Your task to perform on an android device: What is the news today? Image 0: 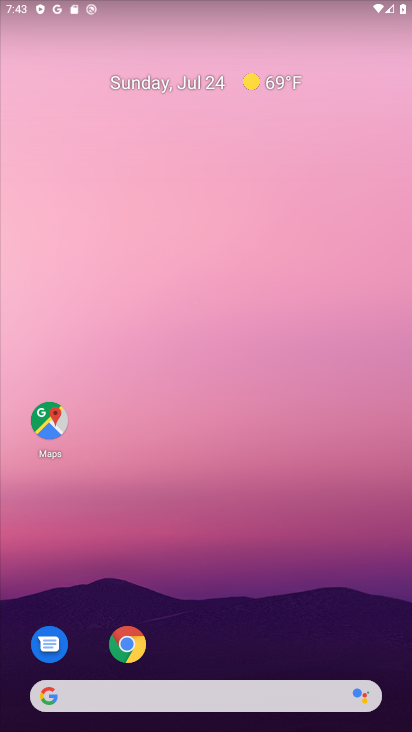
Step 0: drag from (186, 675) to (87, 45)
Your task to perform on an android device: What is the news today? Image 1: 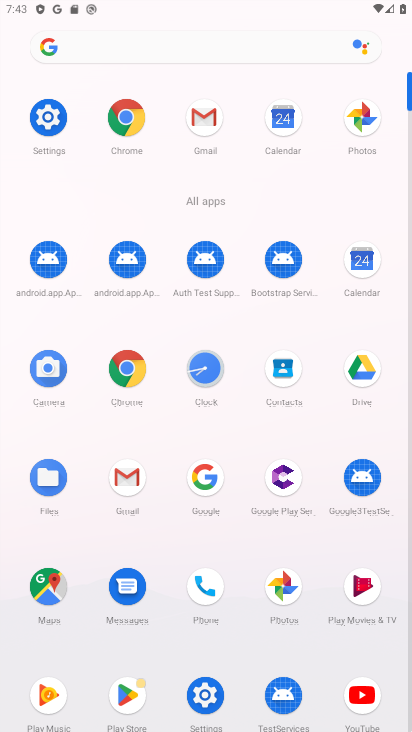
Step 1: click (207, 488)
Your task to perform on an android device: What is the news today? Image 2: 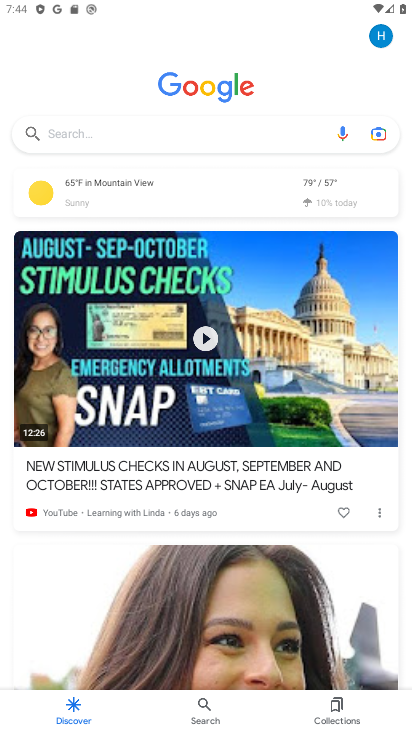
Step 2: click (69, 141)
Your task to perform on an android device: What is the news today? Image 3: 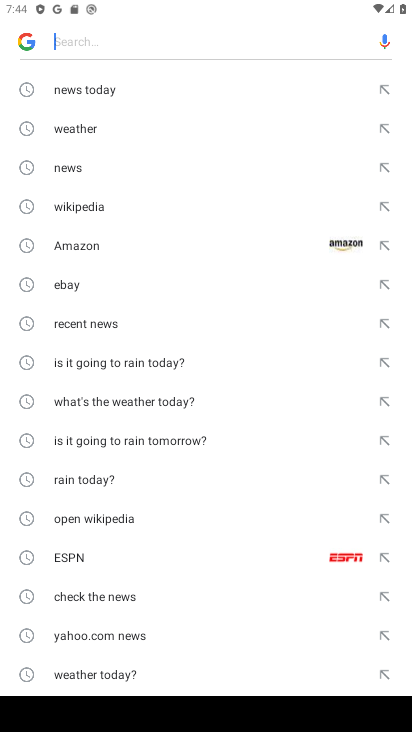
Step 3: click (94, 91)
Your task to perform on an android device: What is the news today? Image 4: 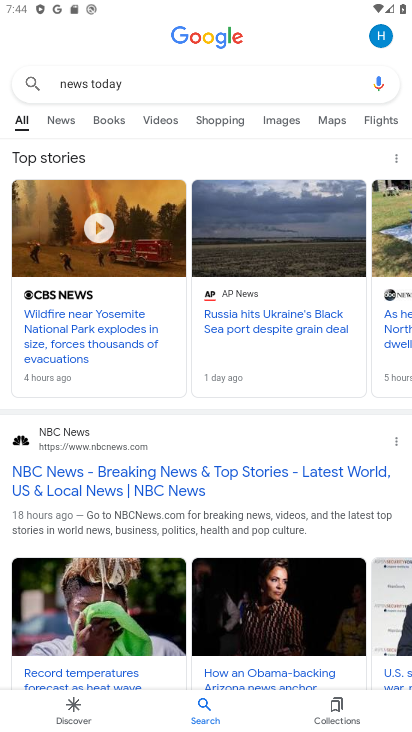
Step 4: task complete